Your task to perform on an android device: search for starred emails in the gmail app Image 0: 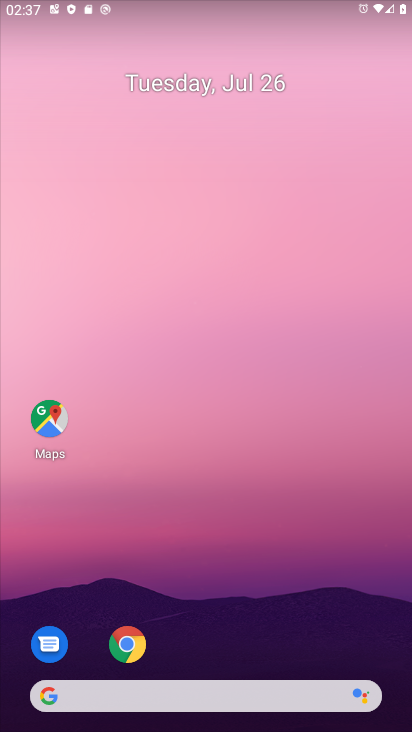
Step 0: drag from (198, 652) to (194, 215)
Your task to perform on an android device: search for starred emails in the gmail app Image 1: 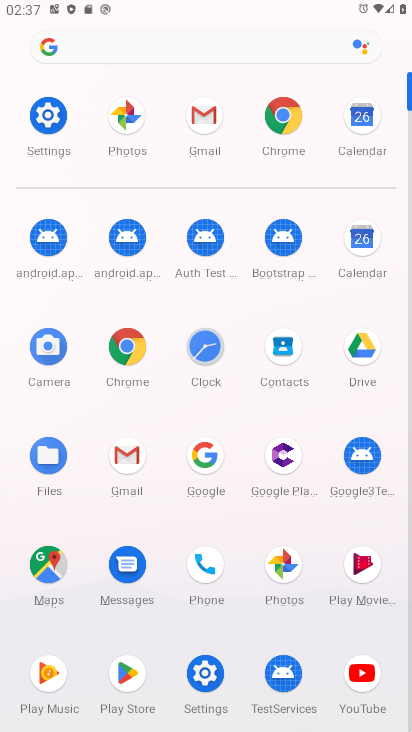
Step 1: click (119, 447)
Your task to perform on an android device: search for starred emails in the gmail app Image 2: 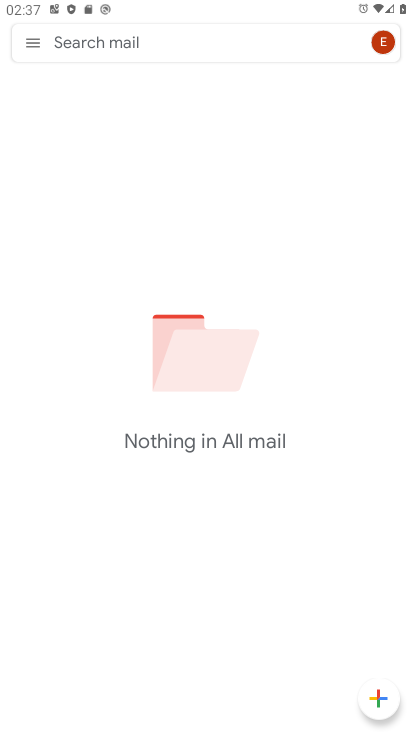
Step 2: click (20, 49)
Your task to perform on an android device: search for starred emails in the gmail app Image 3: 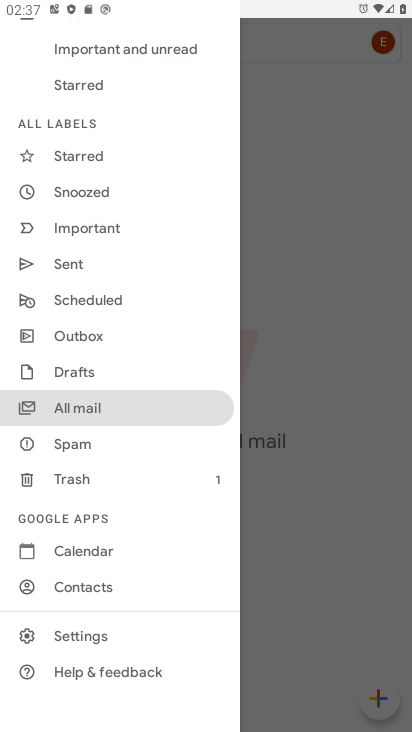
Step 3: click (69, 154)
Your task to perform on an android device: search for starred emails in the gmail app Image 4: 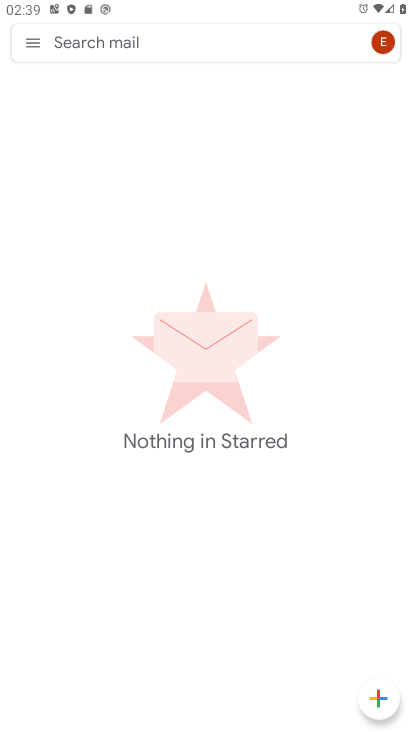
Step 4: task complete